Your task to perform on an android device: turn off data saver in the chrome app Image 0: 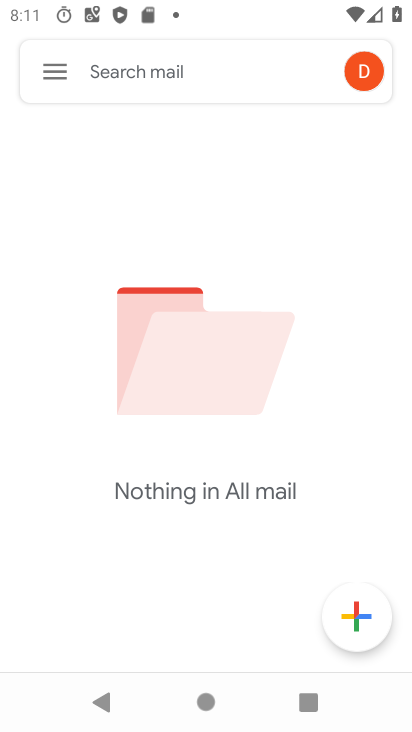
Step 0: press home button
Your task to perform on an android device: turn off data saver in the chrome app Image 1: 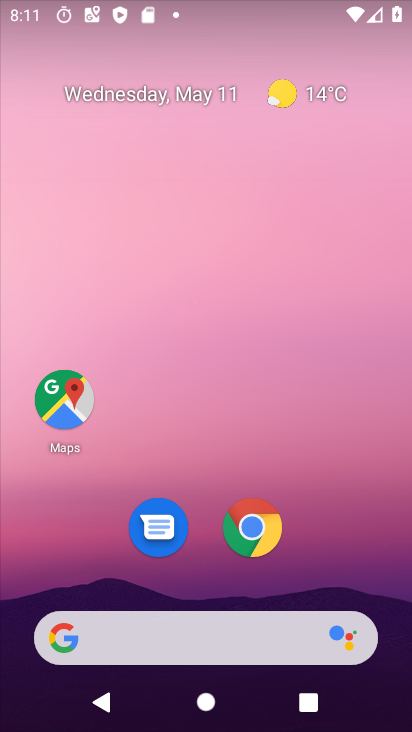
Step 1: drag from (308, 545) to (266, 97)
Your task to perform on an android device: turn off data saver in the chrome app Image 2: 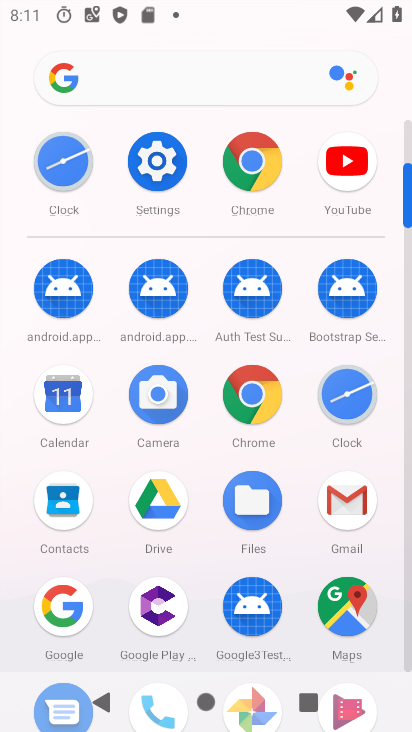
Step 2: click (262, 190)
Your task to perform on an android device: turn off data saver in the chrome app Image 3: 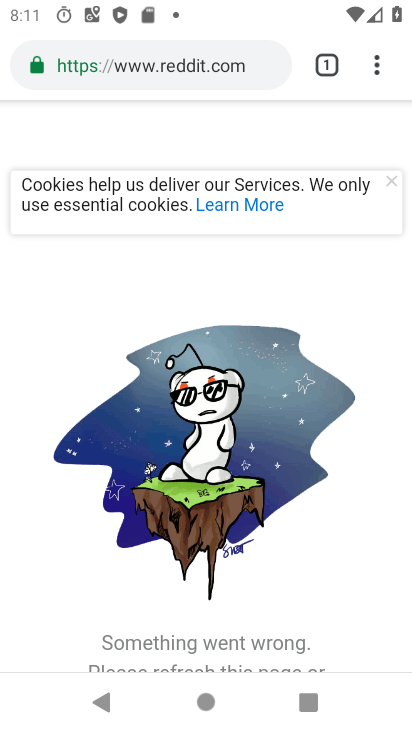
Step 3: click (376, 65)
Your task to perform on an android device: turn off data saver in the chrome app Image 4: 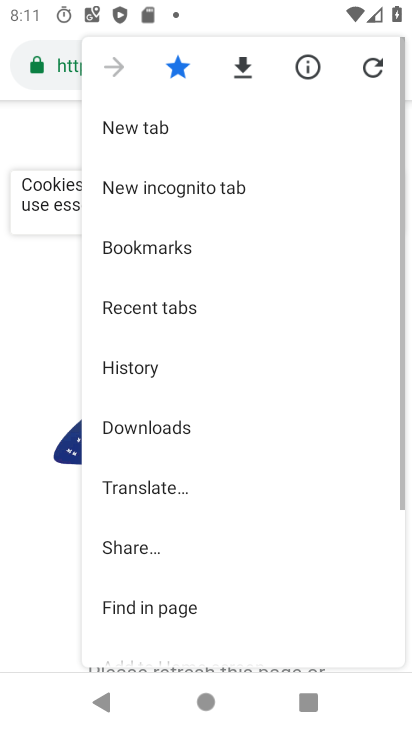
Step 4: drag from (240, 457) to (282, 166)
Your task to perform on an android device: turn off data saver in the chrome app Image 5: 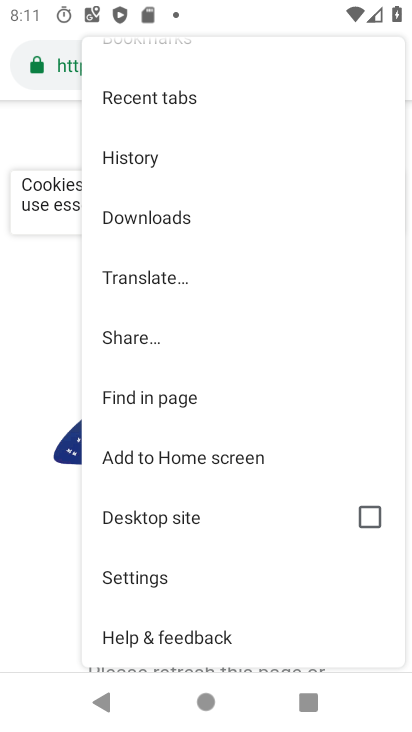
Step 5: click (156, 580)
Your task to perform on an android device: turn off data saver in the chrome app Image 6: 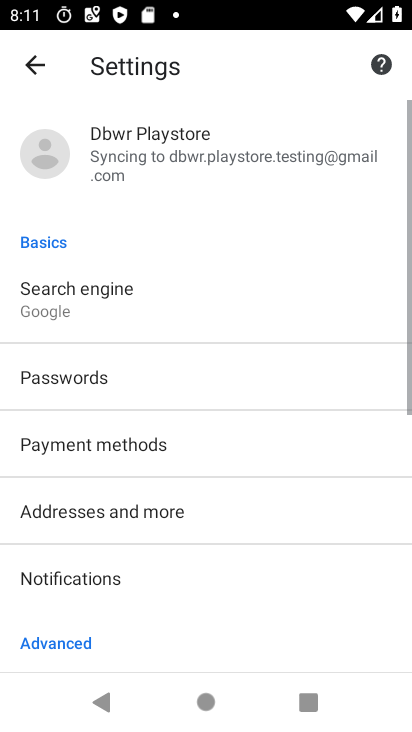
Step 6: drag from (157, 571) to (199, 357)
Your task to perform on an android device: turn off data saver in the chrome app Image 7: 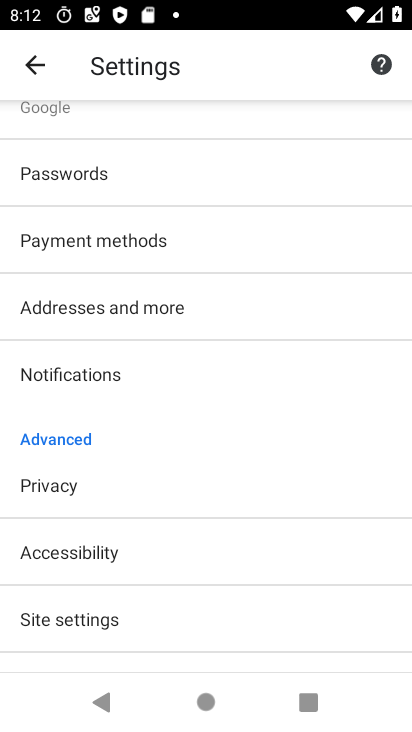
Step 7: drag from (120, 546) to (154, 319)
Your task to perform on an android device: turn off data saver in the chrome app Image 8: 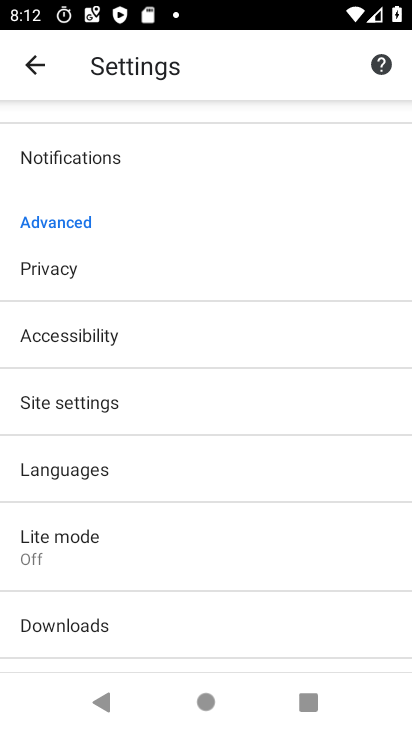
Step 8: drag from (156, 540) to (172, 432)
Your task to perform on an android device: turn off data saver in the chrome app Image 9: 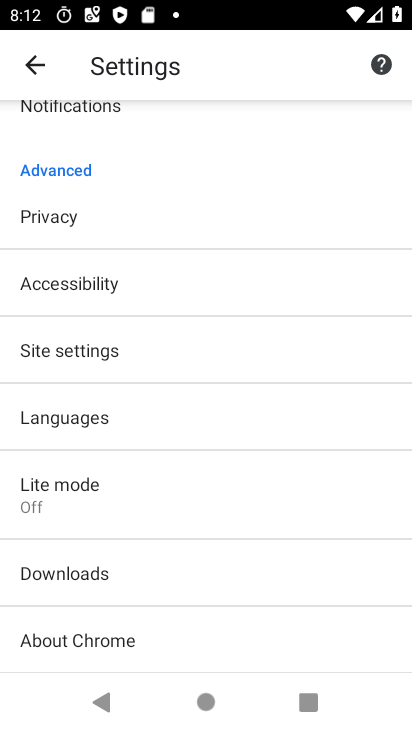
Step 9: click (105, 498)
Your task to perform on an android device: turn off data saver in the chrome app Image 10: 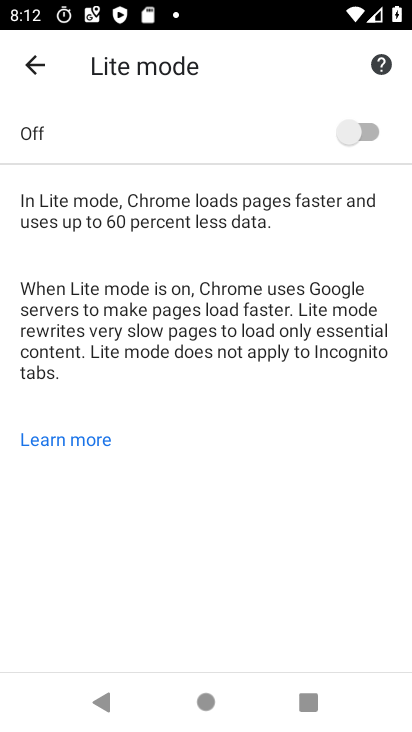
Step 10: task complete